Your task to perform on an android device: turn on wifi Image 0: 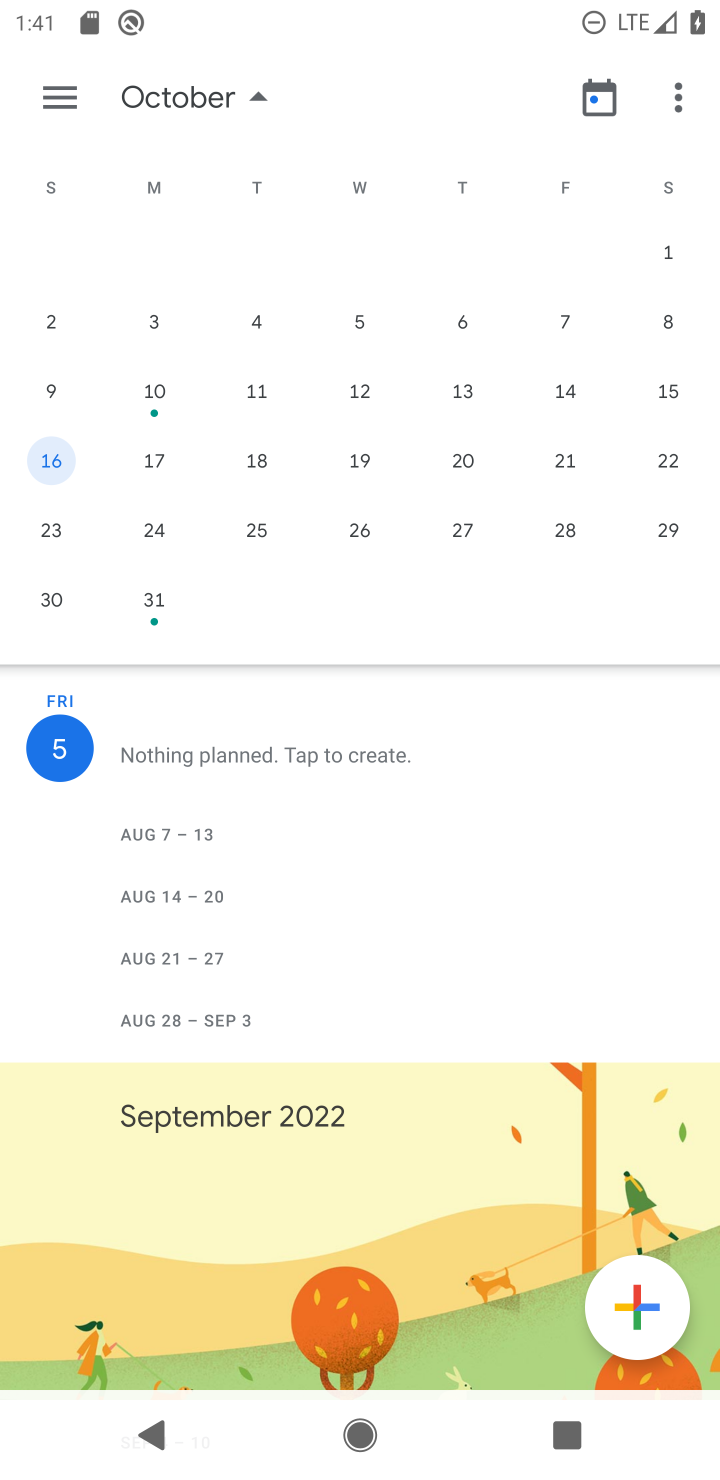
Step 0: press home button
Your task to perform on an android device: turn on wifi Image 1: 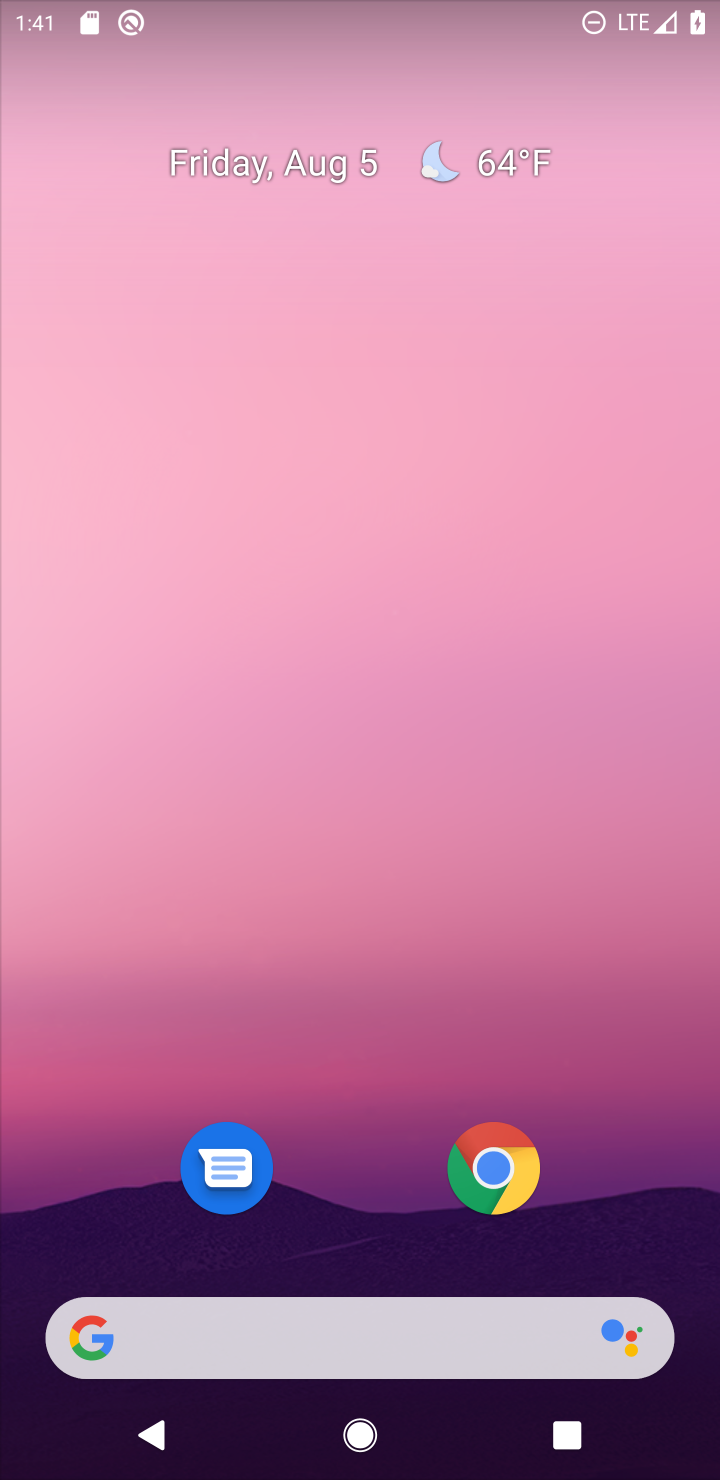
Step 1: drag from (361, 16) to (416, 1248)
Your task to perform on an android device: turn on wifi Image 2: 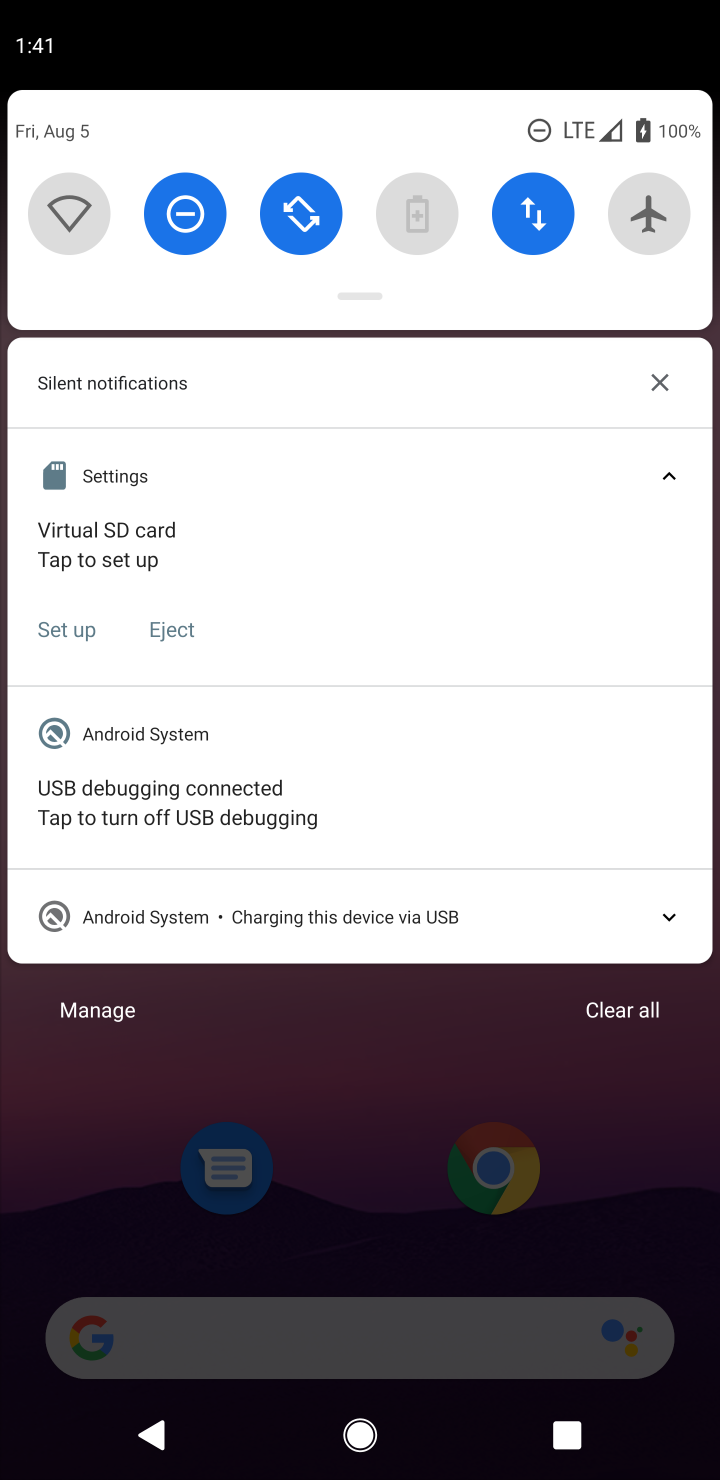
Step 2: click (64, 227)
Your task to perform on an android device: turn on wifi Image 3: 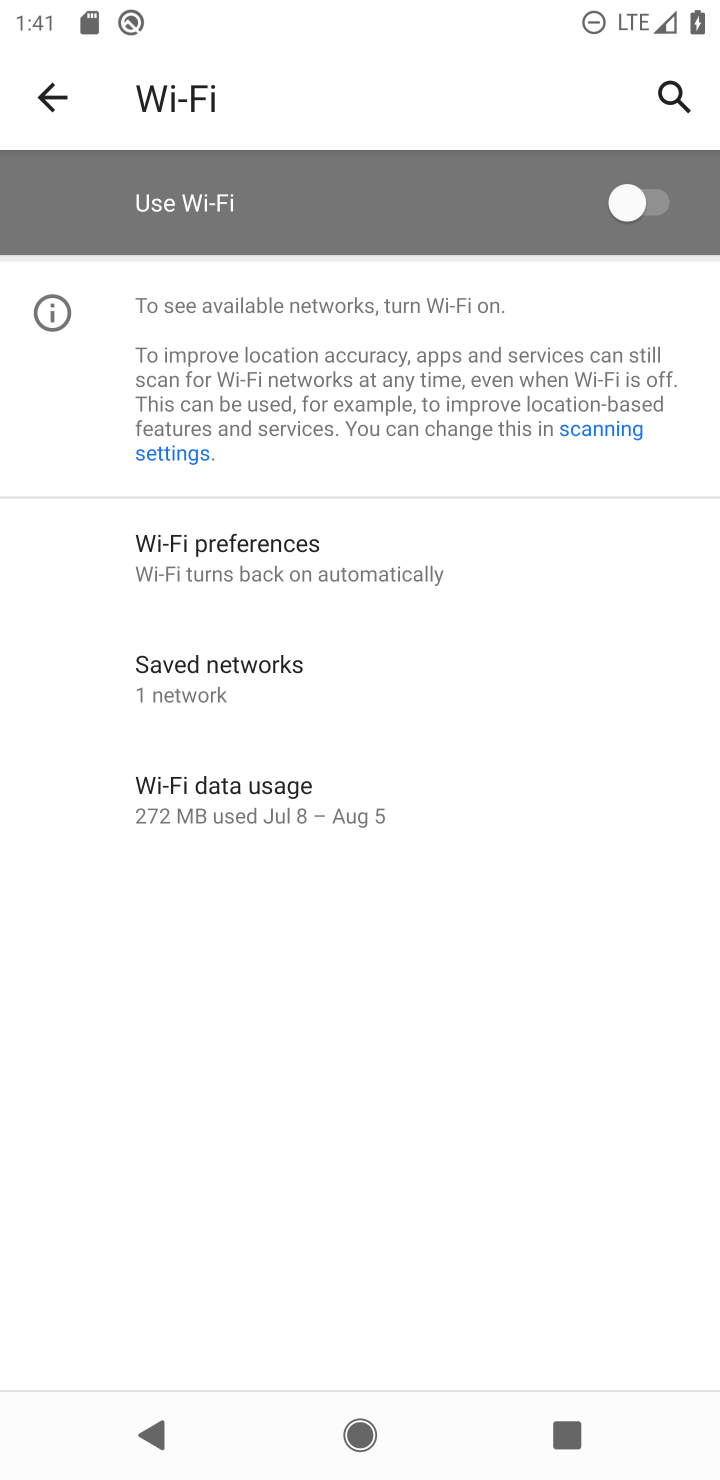
Step 3: click (646, 204)
Your task to perform on an android device: turn on wifi Image 4: 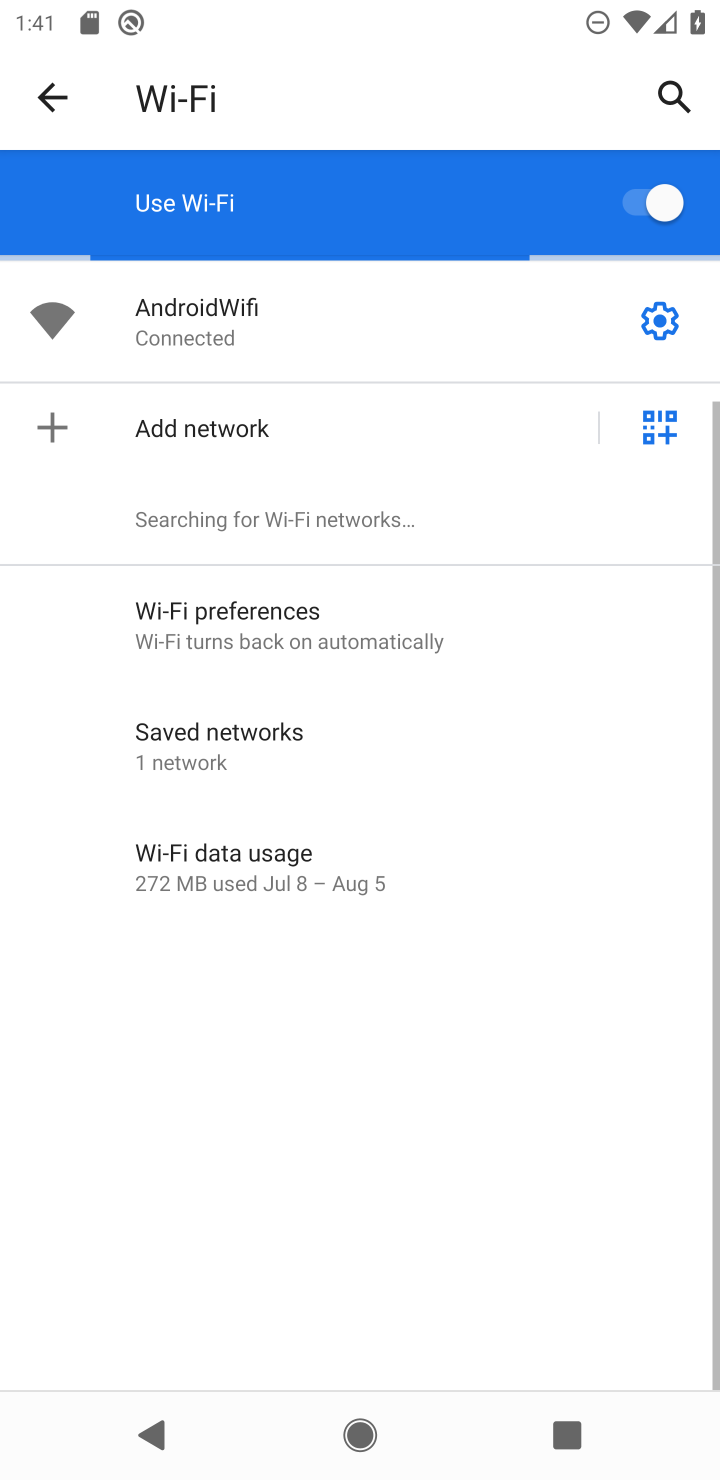
Step 4: task complete